Your task to perform on an android device: toggle priority inbox in the gmail app Image 0: 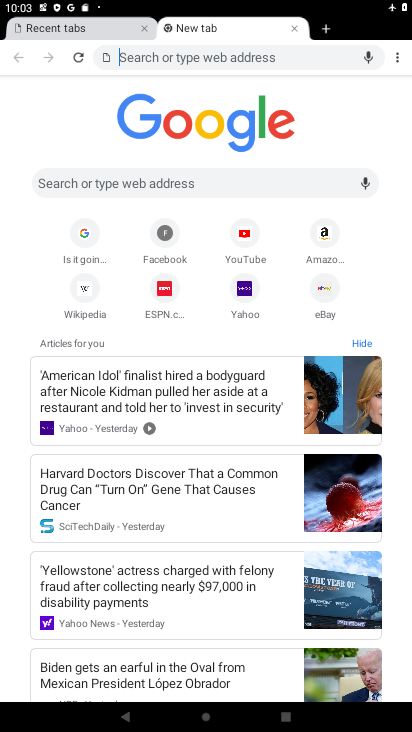
Step 0: press home button
Your task to perform on an android device: toggle priority inbox in the gmail app Image 1: 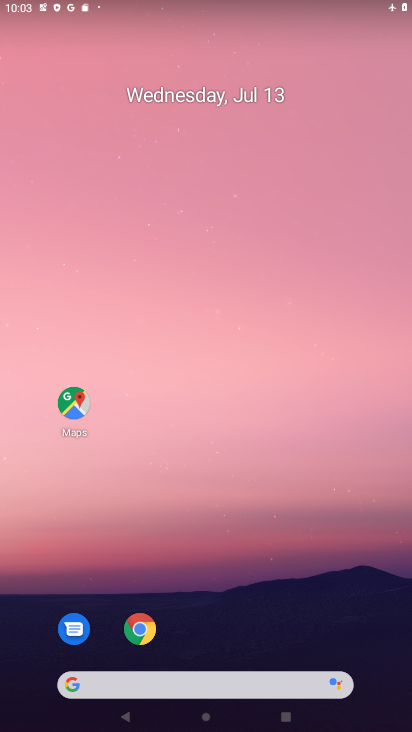
Step 1: drag from (207, 629) to (197, 235)
Your task to perform on an android device: toggle priority inbox in the gmail app Image 2: 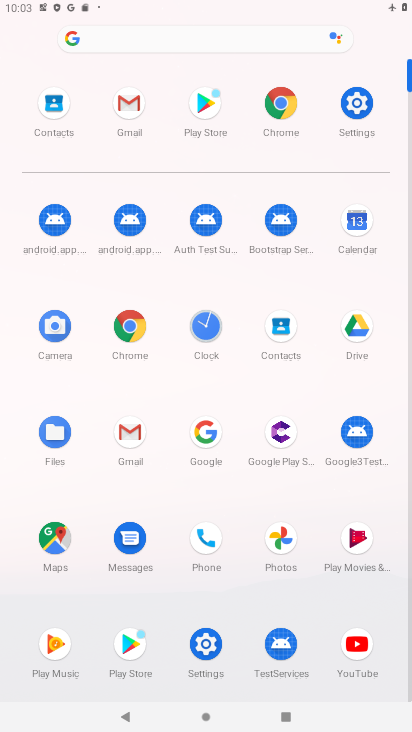
Step 2: click (138, 126)
Your task to perform on an android device: toggle priority inbox in the gmail app Image 3: 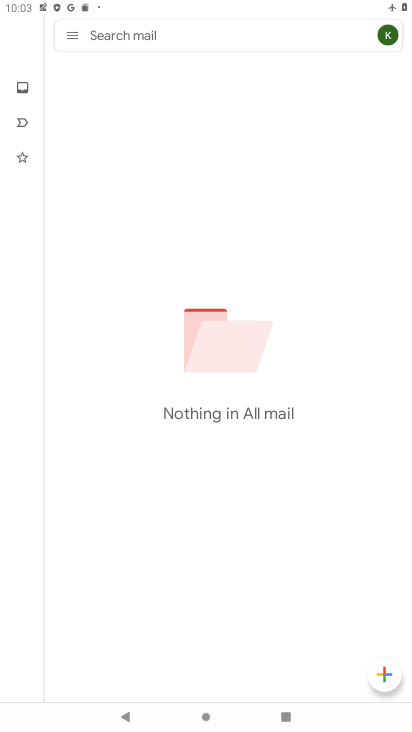
Step 3: task complete